Your task to perform on an android device: Open Chrome and go to settings Image 0: 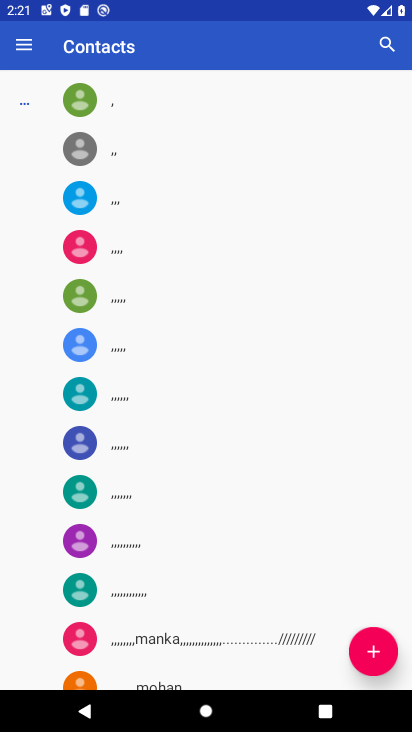
Step 0: press home button
Your task to perform on an android device: Open Chrome and go to settings Image 1: 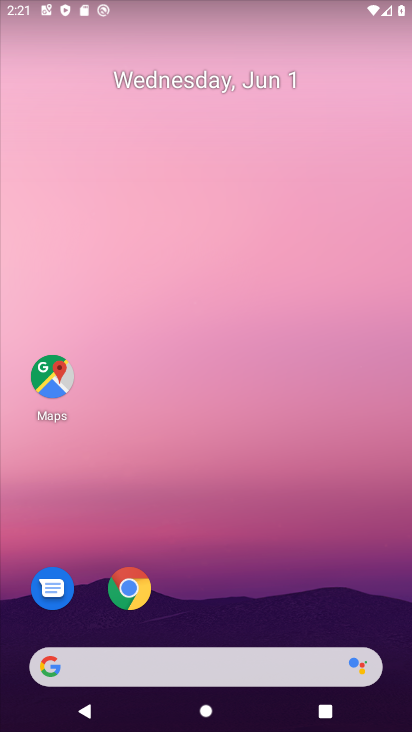
Step 1: click (129, 587)
Your task to perform on an android device: Open Chrome and go to settings Image 2: 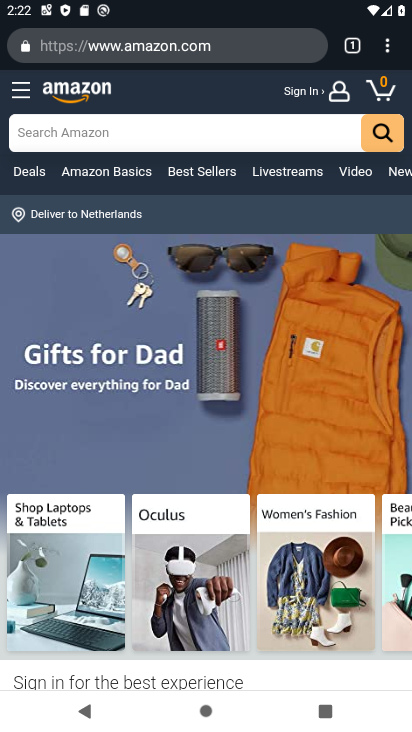
Step 2: click (388, 51)
Your task to perform on an android device: Open Chrome and go to settings Image 3: 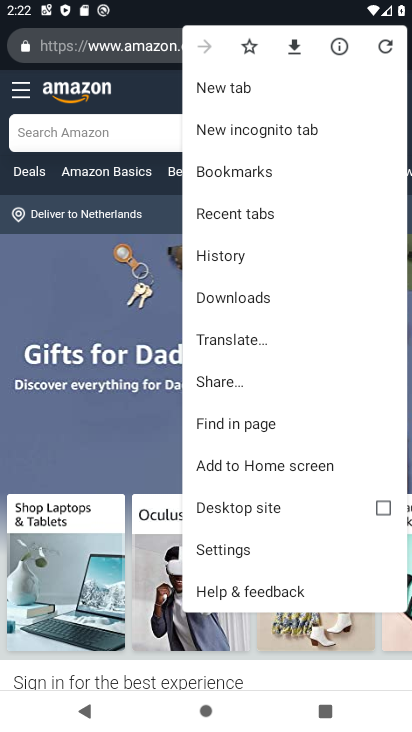
Step 3: click (216, 552)
Your task to perform on an android device: Open Chrome and go to settings Image 4: 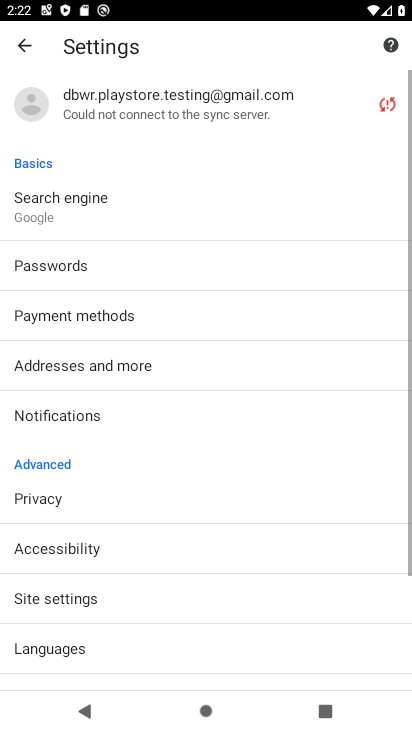
Step 4: task complete